Your task to perform on an android device: star an email in the gmail app Image 0: 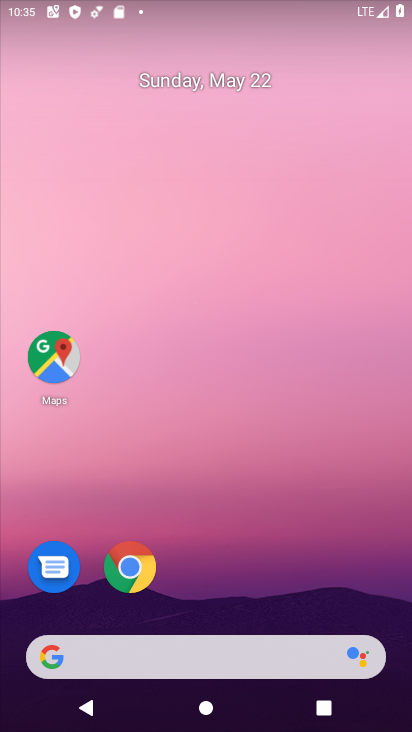
Step 0: drag from (387, 614) to (308, 85)
Your task to perform on an android device: star an email in the gmail app Image 1: 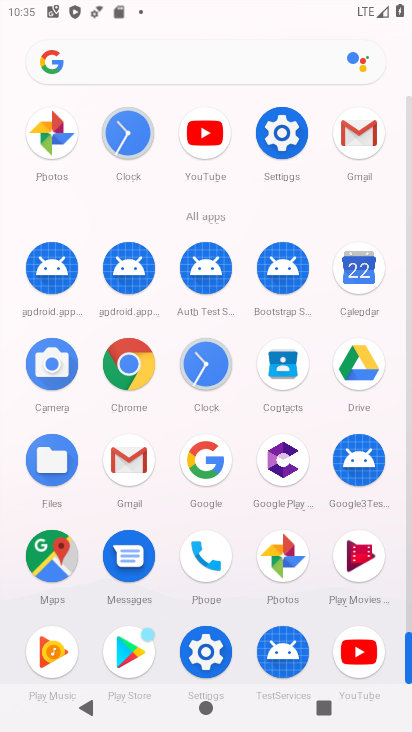
Step 1: click (123, 460)
Your task to perform on an android device: star an email in the gmail app Image 2: 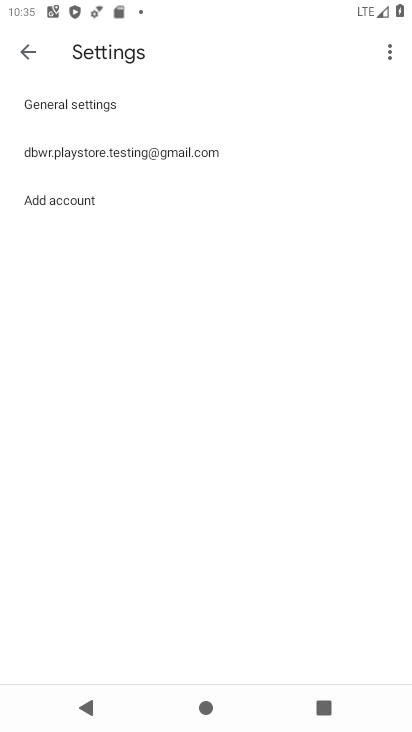
Step 2: task complete